Your task to perform on an android device: open wifi settings Image 0: 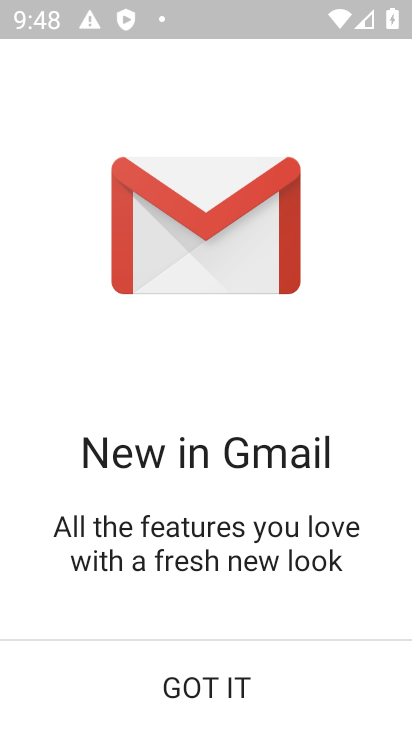
Step 0: click (202, 697)
Your task to perform on an android device: open wifi settings Image 1: 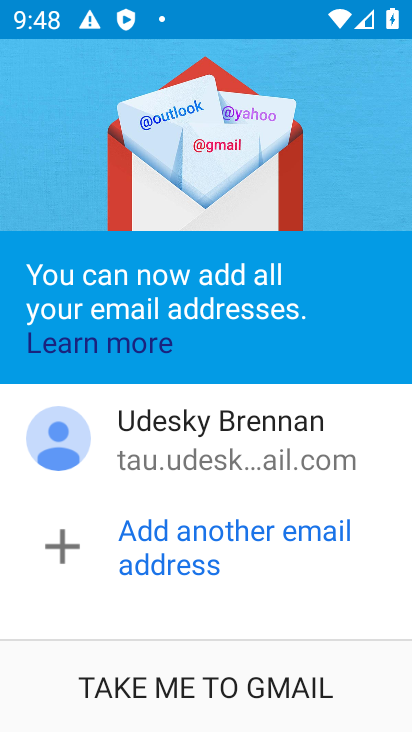
Step 1: click (202, 697)
Your task to perform on an android device: open wifi settings Image 2: 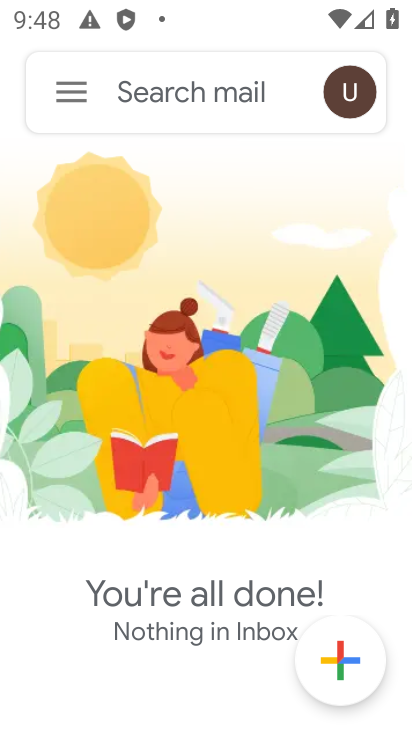
Step 2: task complete